Your task to perform on an android device: Open the stopwatch Image 0: 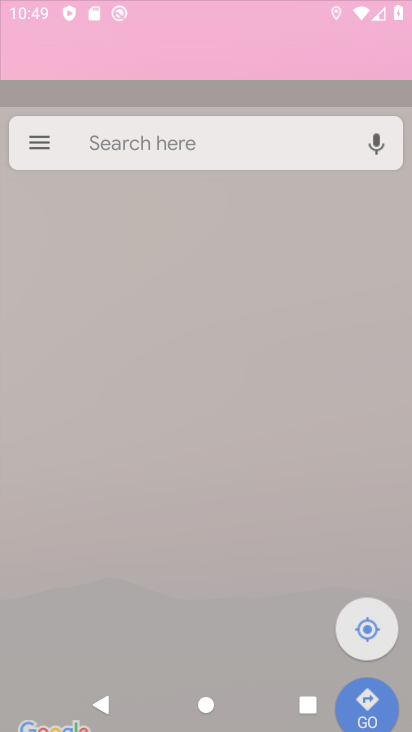
Step 0: click (279, 51)
Your task to perform on an android device: Open the stopwatch Image 1: 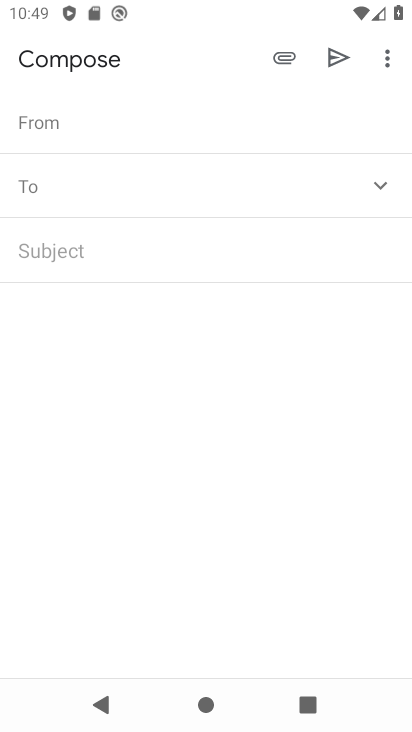
Step 1: drag from (269, 585) to (357, 166)
Your task to perform on an android device: Open the stopwatch Image 2: 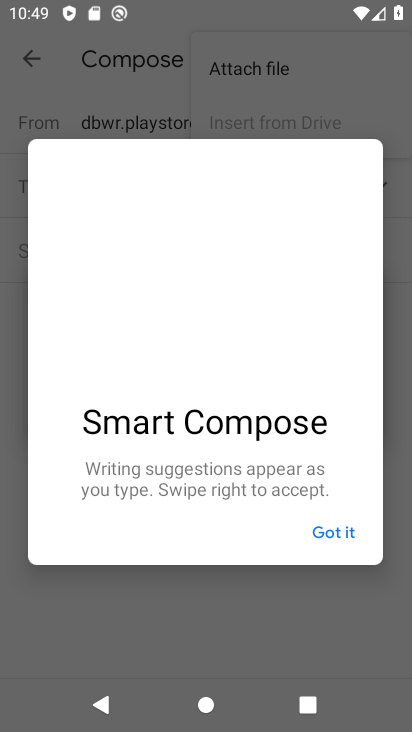
Step 2: press home button
Your task to perform on an android device: Open the stopwatch Image 3: 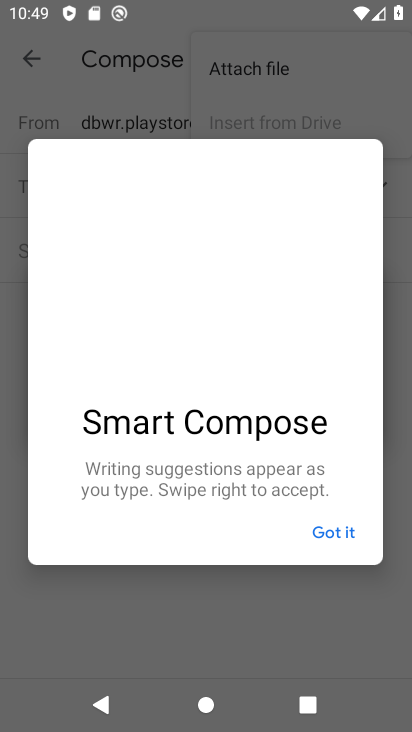
Step 3: click (400, 517)
Your task to perform on an android device: Open the stopwatch Image 4: 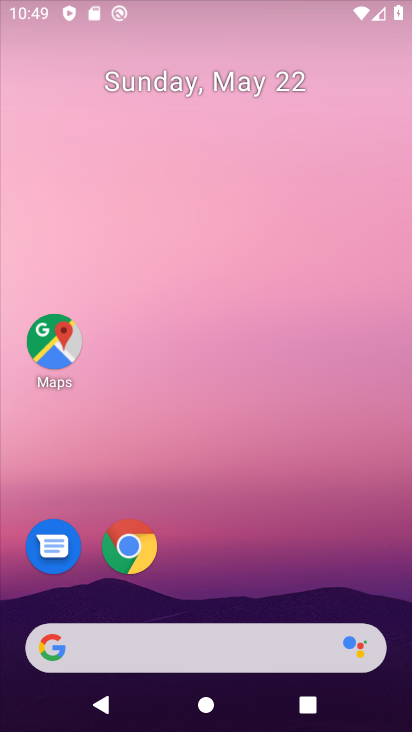
Step 4: drag from (267, 608) to (299, 153)
Your task to perform on an android device: Open the stopwatch Image 5: 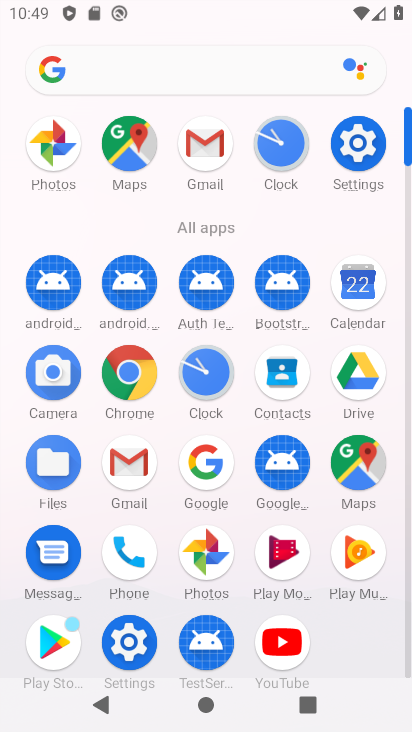
Step 5: click (209, 383)
Your task to perform on an android device: Open the stopwatch Image 6: 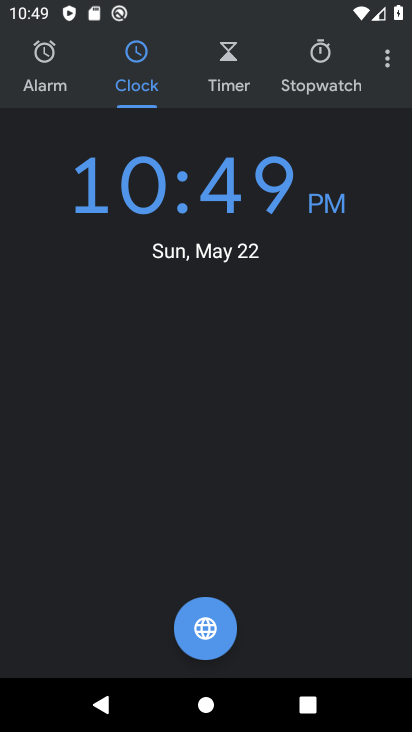
Step 6: click (316, 65)
Your task to perform on an android device: Open the stopwatch Image 7: 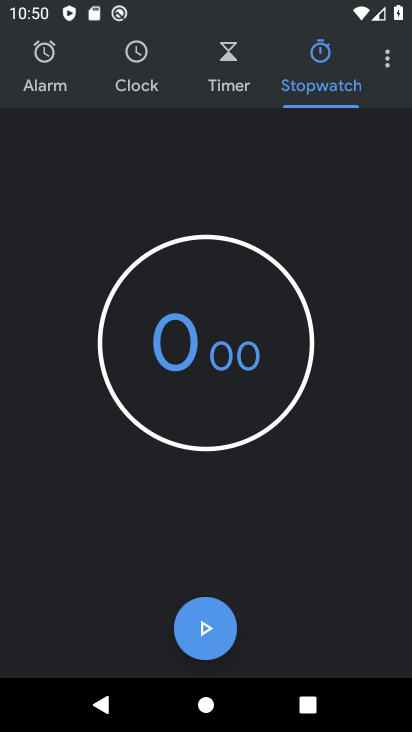
Step 7: task complete